Your task to perform on an android device: see sites visited before in the chrome app Image 0: 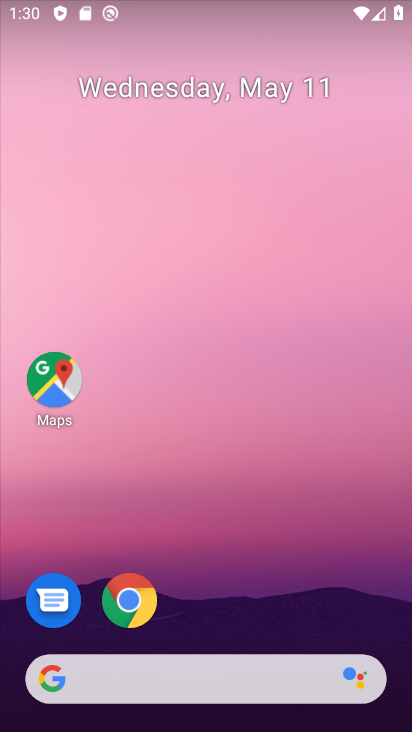
Step 0: drag from (208, 595) to (237, 278)
Your task to perform on an android device: see sites visited before in the chrome app Image 1: 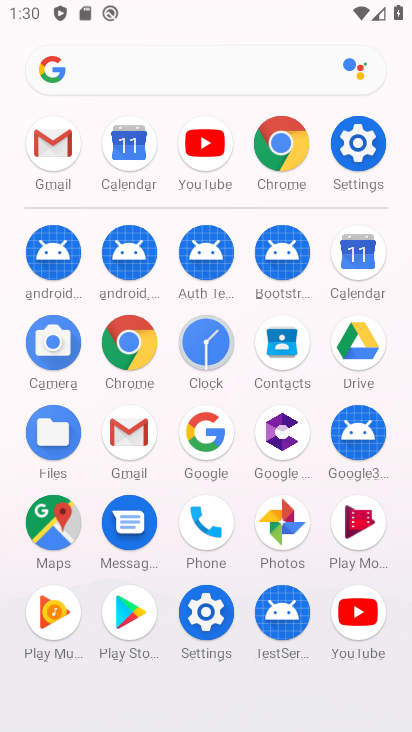
Step 1: click (128, 346)
Your task to perform on an android device: see sites visited before in the chrome app Image 2: 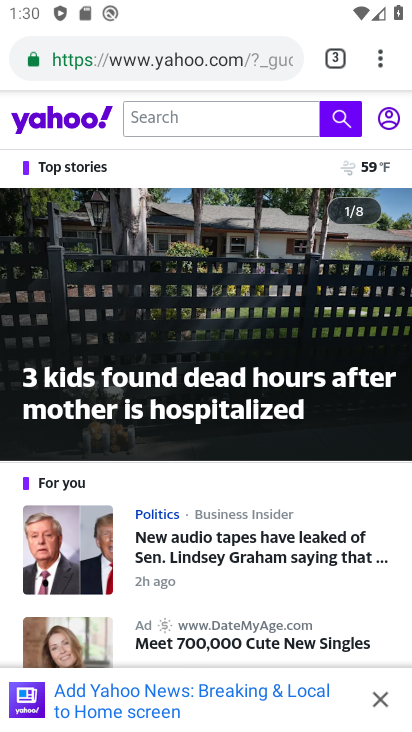
Step 2: click (375, 54)
Your task to perform on an android device: see sites visited before in the chrome app Image 3: 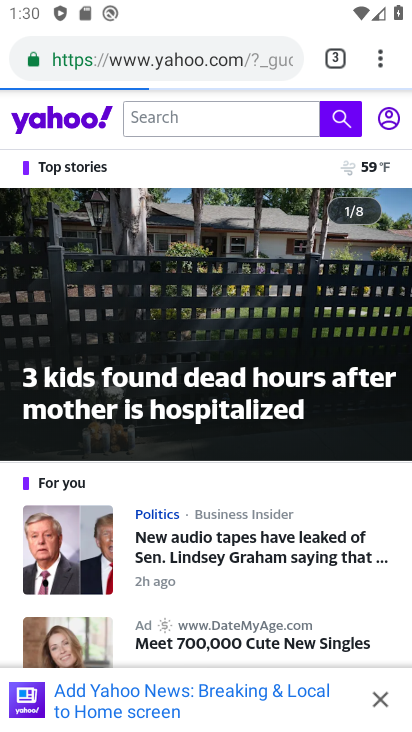
Step 3: click (370, 53)
Your task to perform on an android device: see sites visited before in the chrome app Image 4: 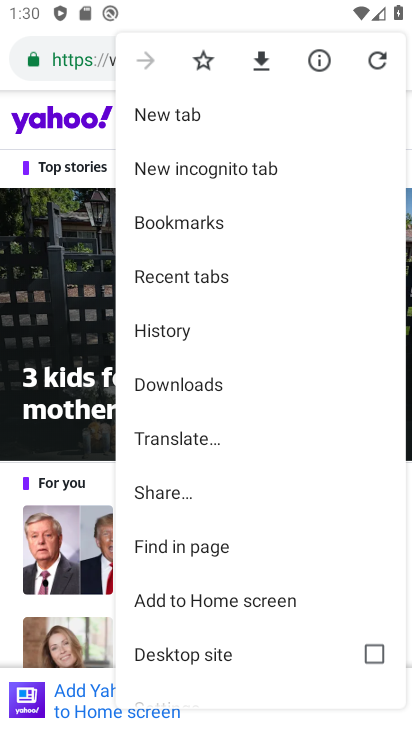
Step 4: click (176, 325)
Your task to perform on an android device: see sites visited before in the chrome app Image 5: 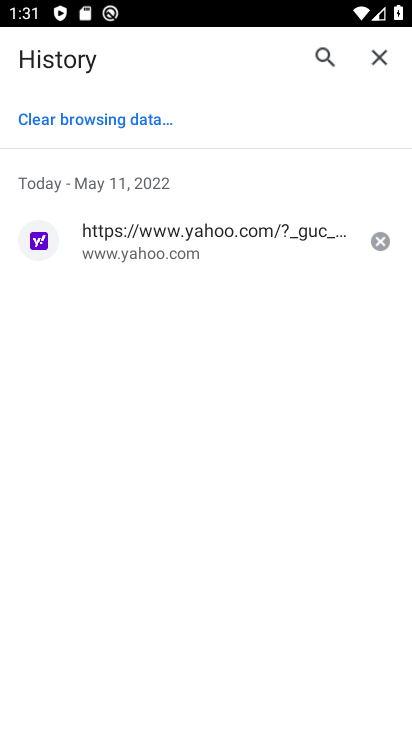
Step 5: task complete